Your task to perform on an android device: toggle data saver in the chrome app Image 0: 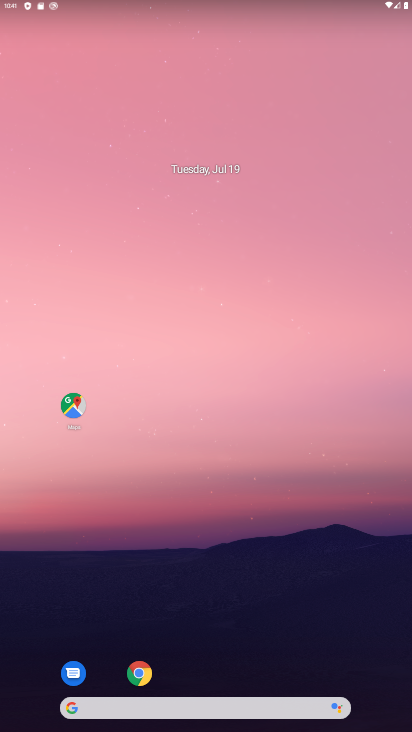
Step 0: click (136, 670)
Your task to perform on an android device: toggle data saver in the chrome app Image 1: 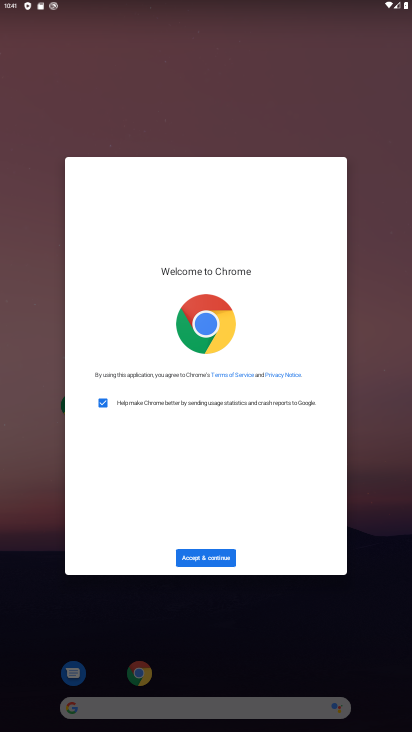
Step 1: click (189, 560)
Your task to perform on an android device: toggle data saver in the chrome app Image 2: 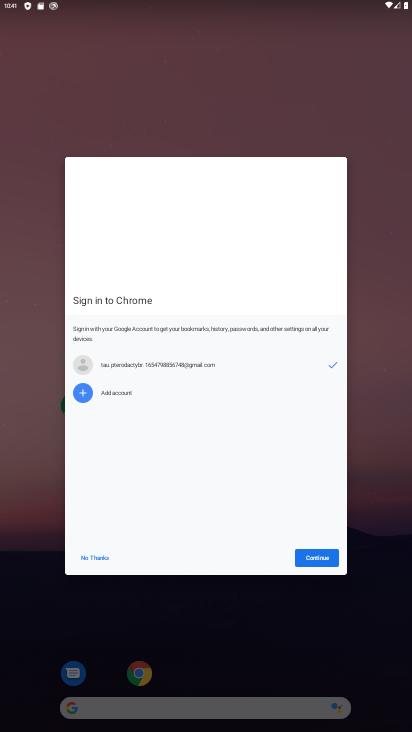
Step 2: click (307, 557)
Your task to perform on an android device: toggle data saver in the chrome app Image 3: 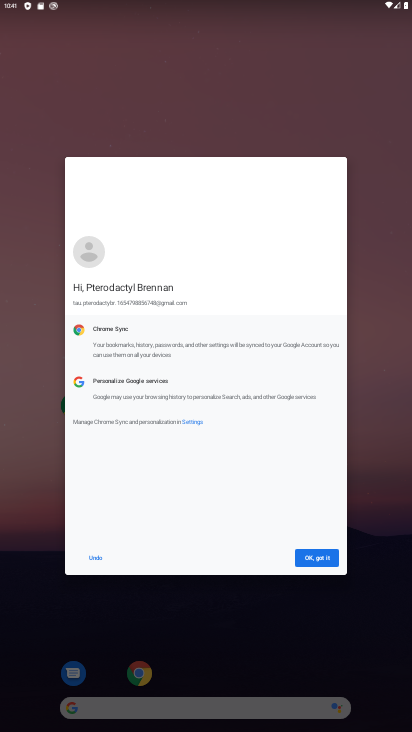
Step 3: click (307, 557)
Your task to perform on an android device: toggle data saver in the chrome app Image 4: 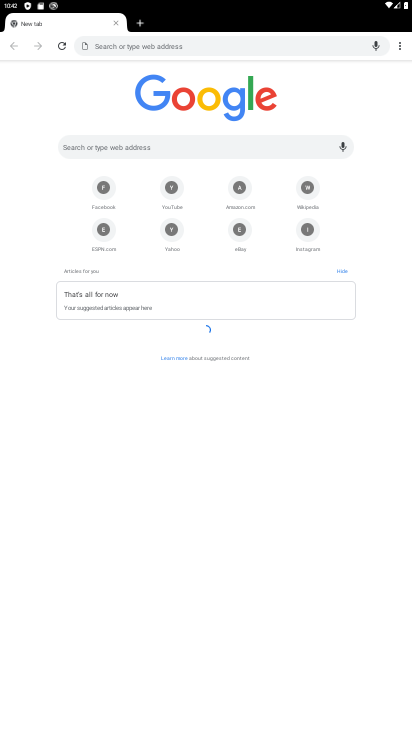
Step 4: click (395, 50)
Your task to perform on an android device: toggle data saver in the chrome app Image 5: 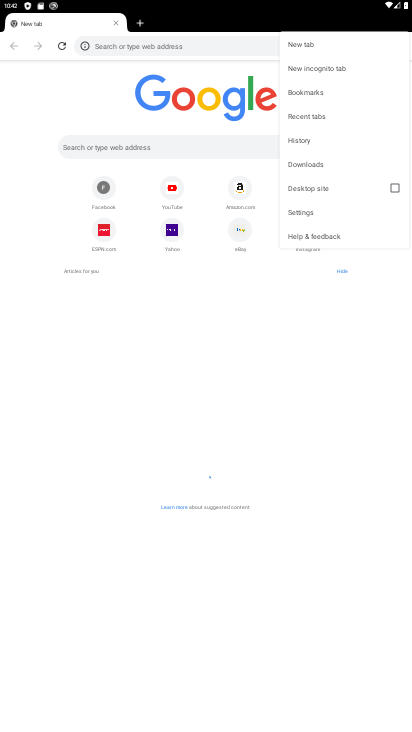
Step 5: click (296, 214)
Your task to perform on an android device: toggle data saver in the chrome app Image 6: 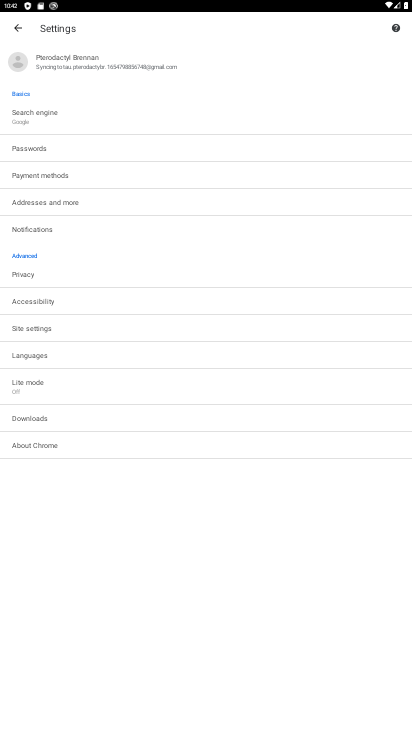
Step 6: click (57, 391)
Your task to perform on an android device: toggle data saver in the chrome app Image 7: 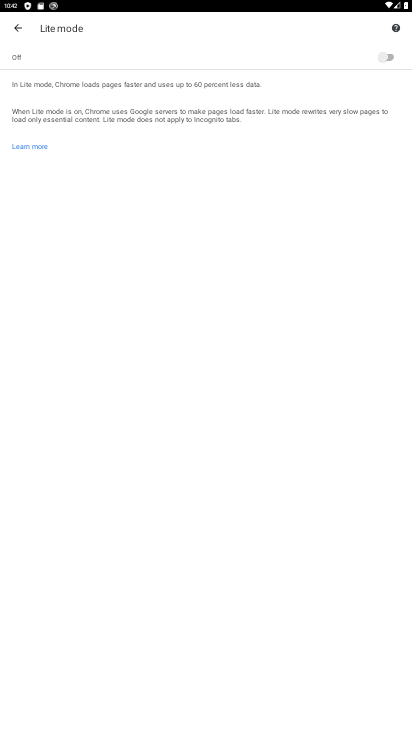
Step 7: click (385, 58)
Your task to perform on an android device: toggle data saver in the chrome app Image 8: 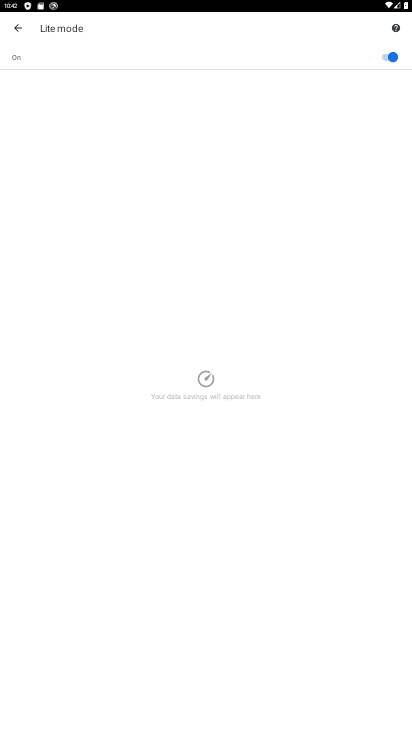
Step 8: task complete